Your task to perform on an android device: add a contact in the contacts app Image 0: 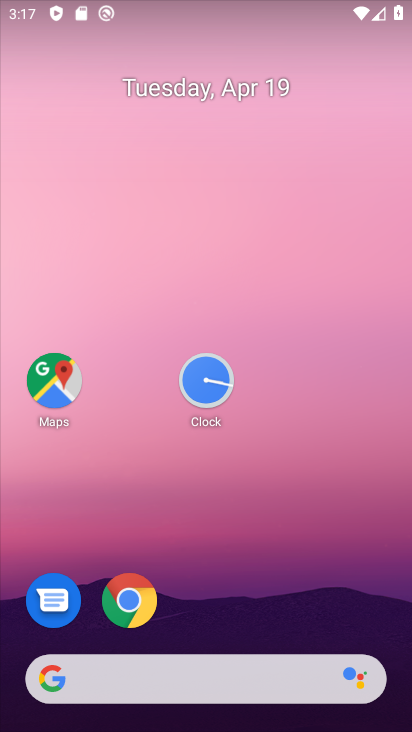
Step 0: click (191, 226)
Your task to perform on an android device: add a contact in the contacts app Image 1: 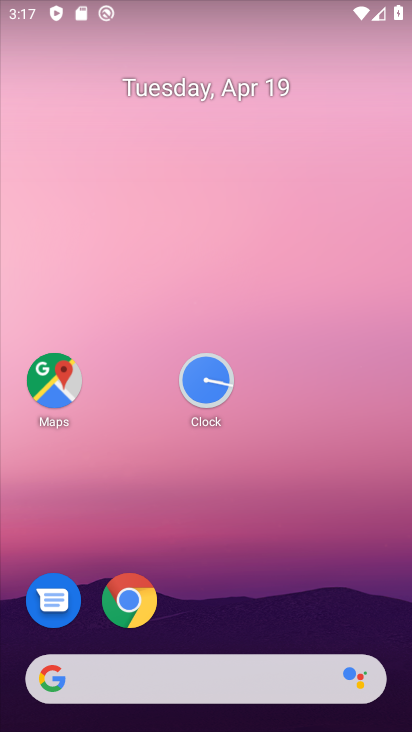
Step 1: click (279, 299)
Your task to perform on an android device: add a contact in the contacts app Image 2: 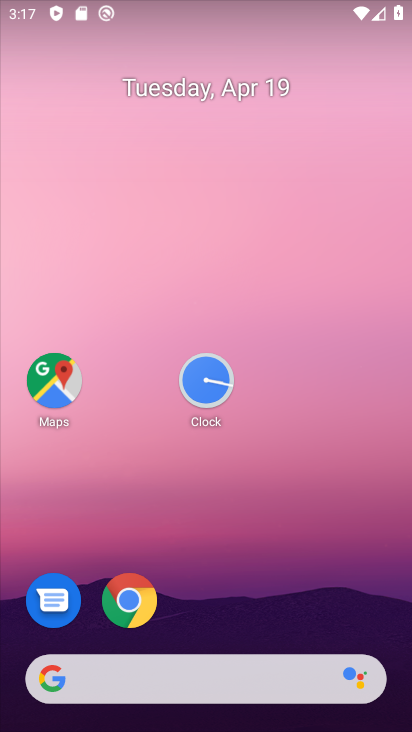
Step 2: drag from (194, 383) to (160, 207)
Your task to perform on an android device: add a contact in the contacts app Image 3: 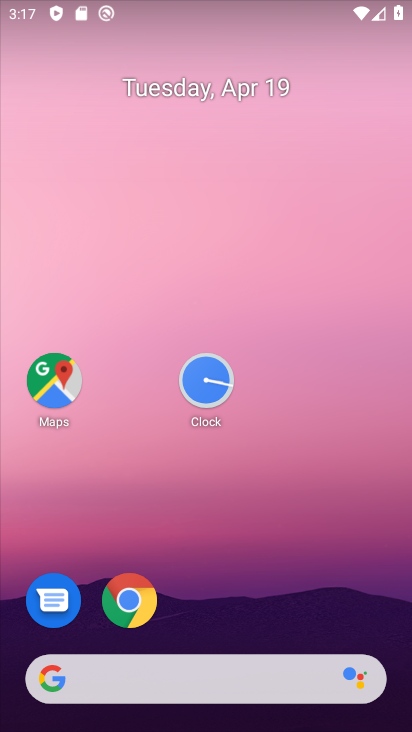
Step 3: drag from (165, 478) to (44, 285)
Your task to perform on an android device: add a contact in the contacts app Image 4: 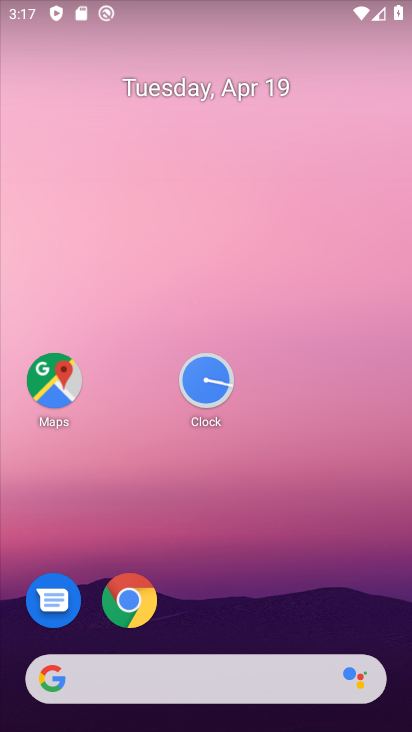
Step 4: drag from (206, 312) to (185, 150)
Your task to perform on an android device: add a contact in the contacts app Image 5: 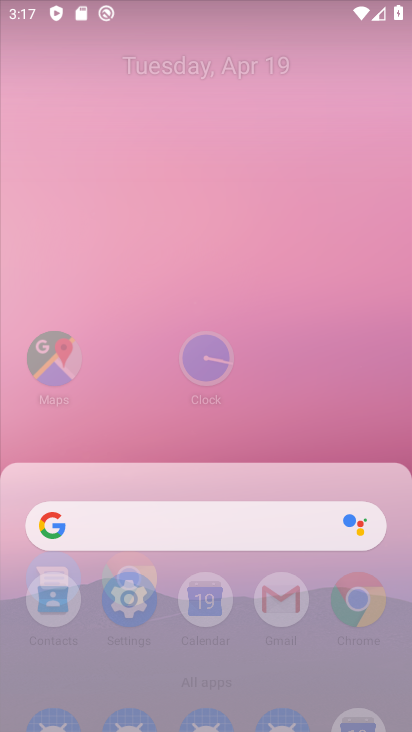
Step 5: drag from (265, 537) to (201, 97)
Your task to perform on an android device: add a contact in the contacts app Image 6: 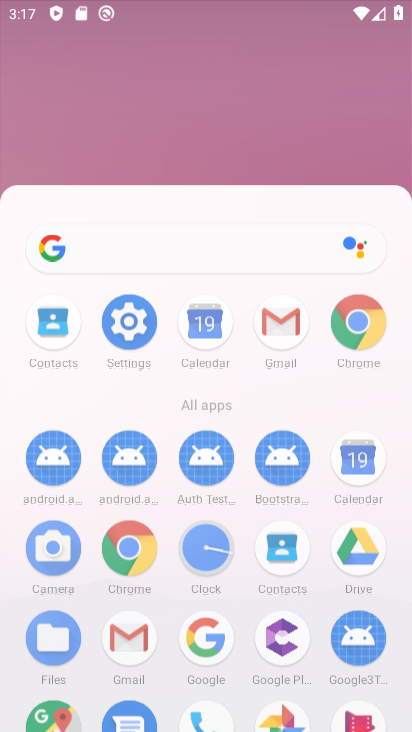
Step 6: drag from (311, 407) to (212, 59)
Your task to perform on an android device: add a contact in the contacts app Image 7: 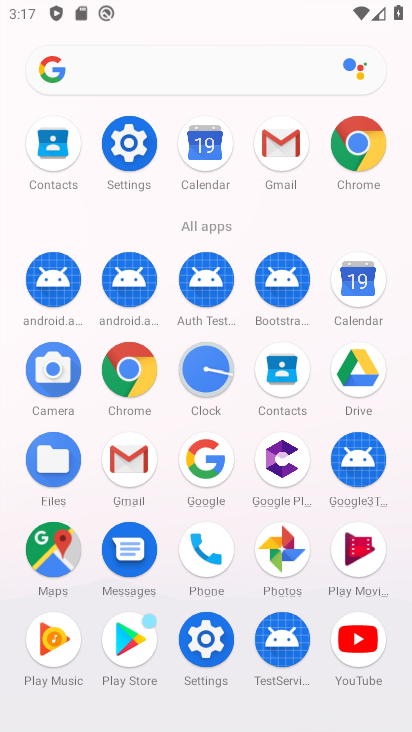
Step 7: click (276, 365)
Your task to perform on an android device: add a contact in the contacts app Image 8: 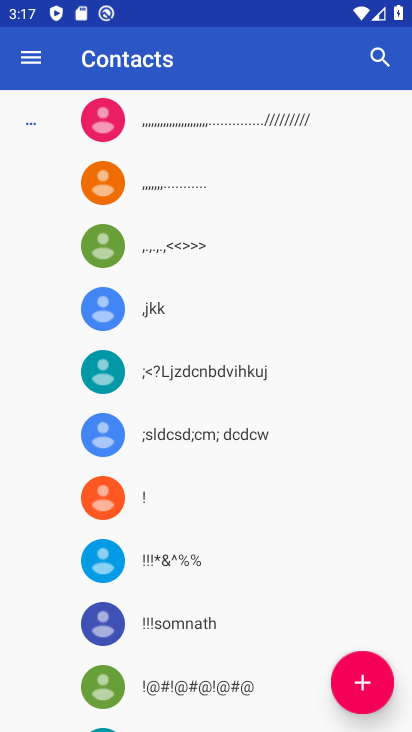
Step 8: click (363, 665)
Your task to perform on an android device: add a contact in the contacts app Image 9: 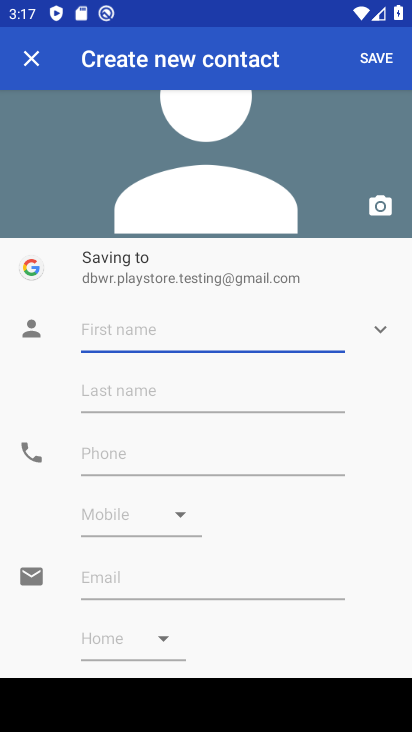
Step 9: type "sangeeta"
Your task to perform on an android device: add a contact in the contacts app Image 10: 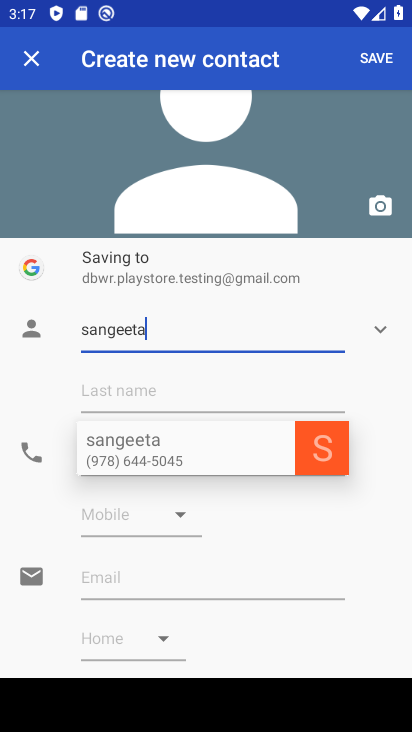
Step 10: click (54, 449)
Your task to perform on an android device: add a contact in the contacts app Image 11: 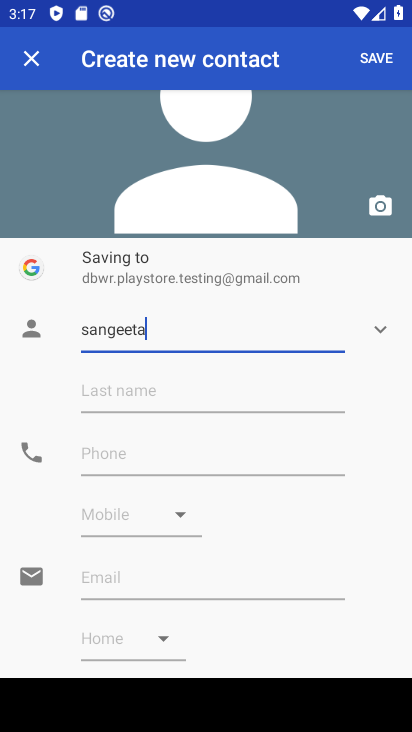
Step 11: click (135, 454)
Your task to perform on an android device: add a contact in the contacts app Image 12: 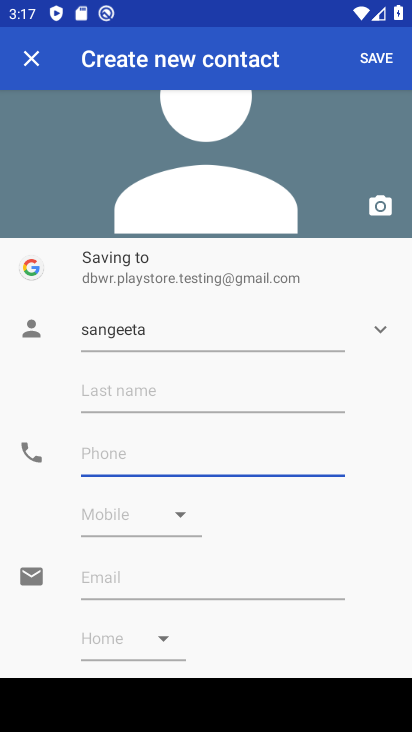
Step 12: click (106, 450)
Your task to perform on an android device: add a contact in the contacts app Image 13: 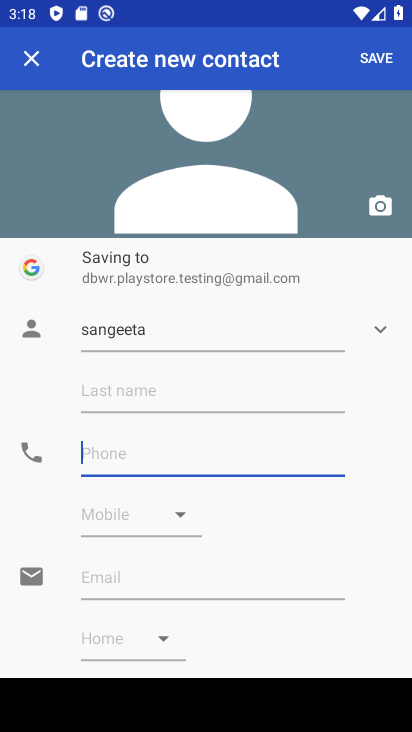
Step 13: type "8798667867"
Your task to perform on an android device: add a contact in the contacts app Image 14: 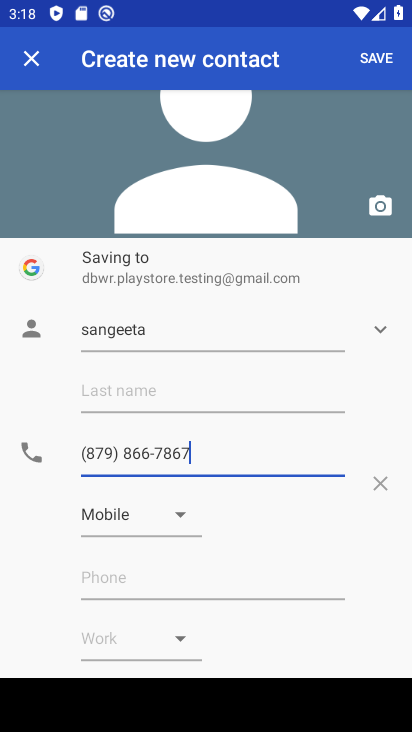
Step 14: click (377, 56)
Your task to perform on an android device: add a contact in the contacts app Image 15: 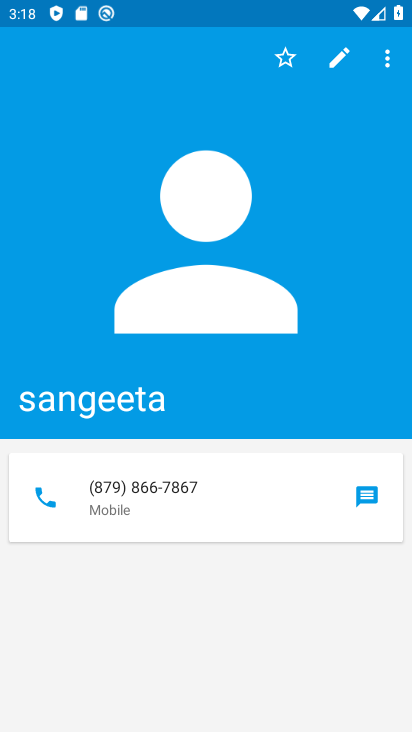
Step 15: task complete